Your task to perform on an android device: add a contact in the contacts app Image 0: 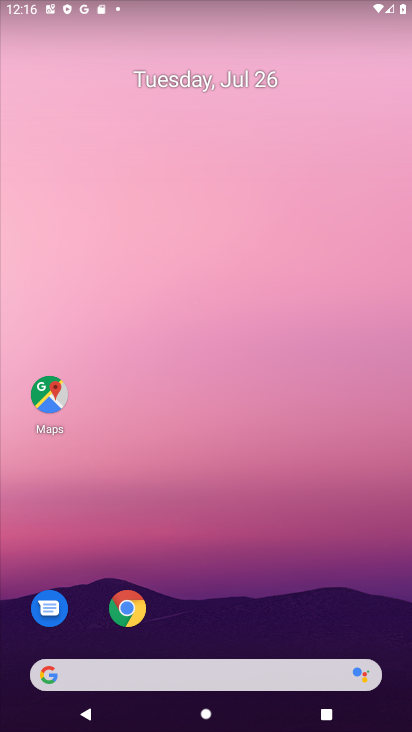
Step 0: drag from (200, 617) to (379, 49)
Your task to perform on an android device: add a contact in the contacts app Image 1: 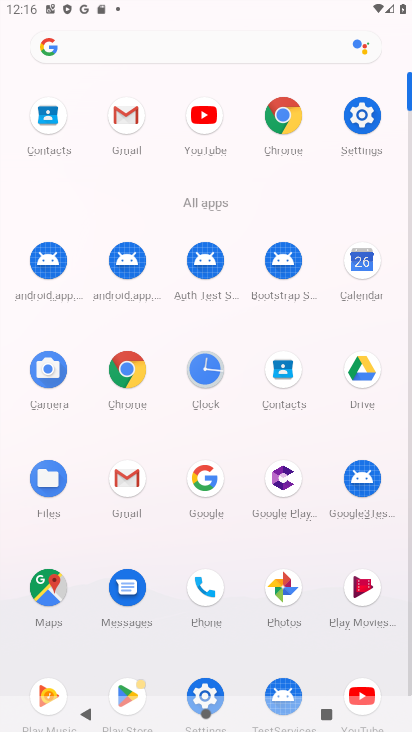
Step 1: click (280, 373)
Your task to perform on an android device: add a contact in the contacts app Image 2: 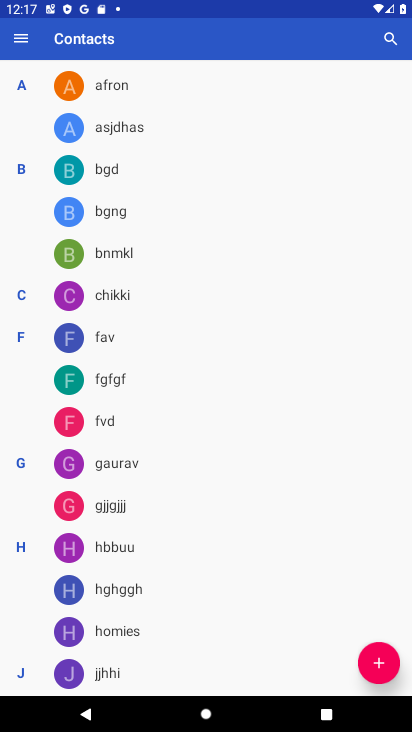
Step 2: click (377, 671)
Your task to perform on an android device: add a contact in the contacts app Image 3: 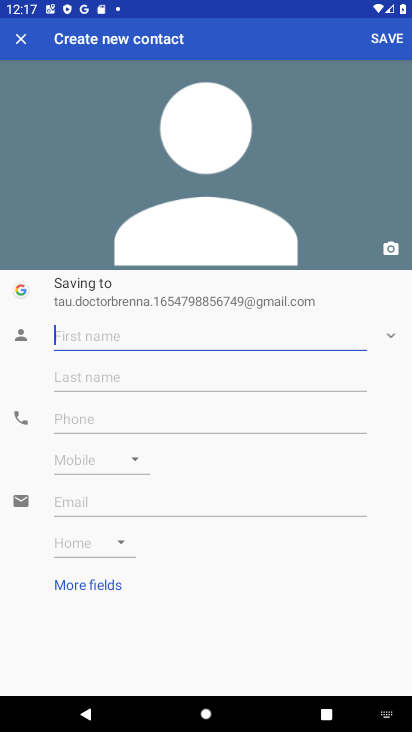
Step 3: type "oijhgfcdx"
Your task to perform on an android device: add a contact in the contacts app Image 4: 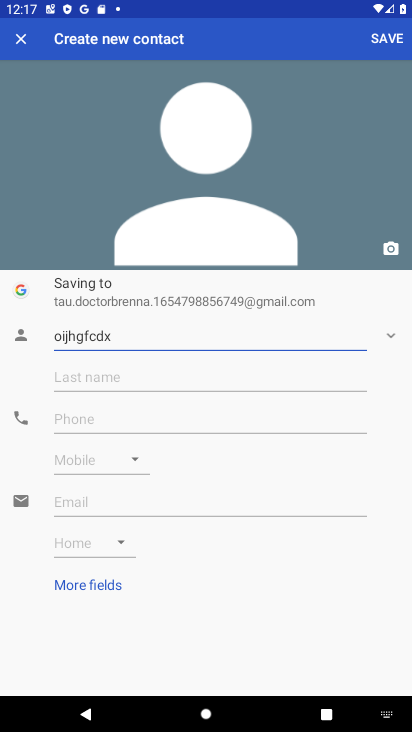
Step 4: click (108, 416)
Your task to perform on an android device: add a contact in the contacts app Image 5: 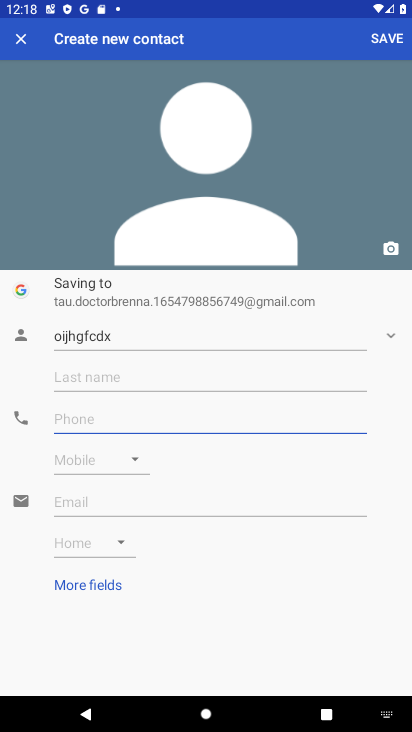
Step 5: type "345676567"
Your task to perform on an android device: add a contact in the contacts app Image 6: 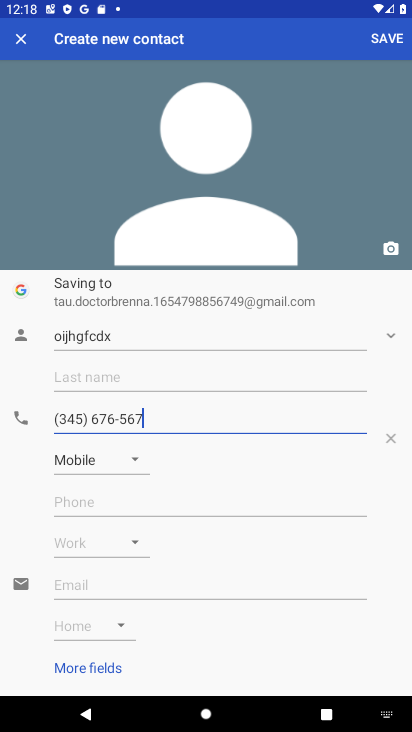
Step 6: click (375, 39)
Your task to perform on an android device: add a contact in the contacts app Image 7: 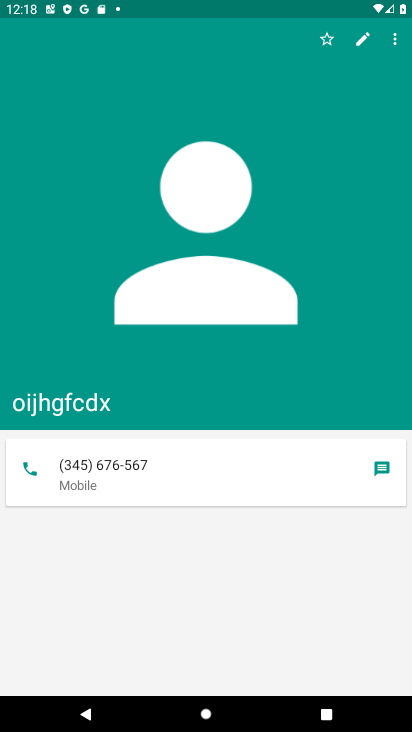
Step 7: task complete